Your task to perform on an android device: check out phone information Image 0: 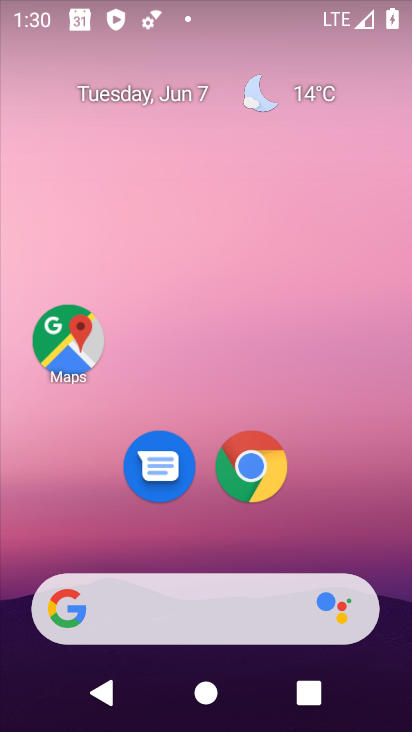
Step 0: drag from (261, 562) to (248, 14)
Your task to perform on an android device: check out phone information Image 1: 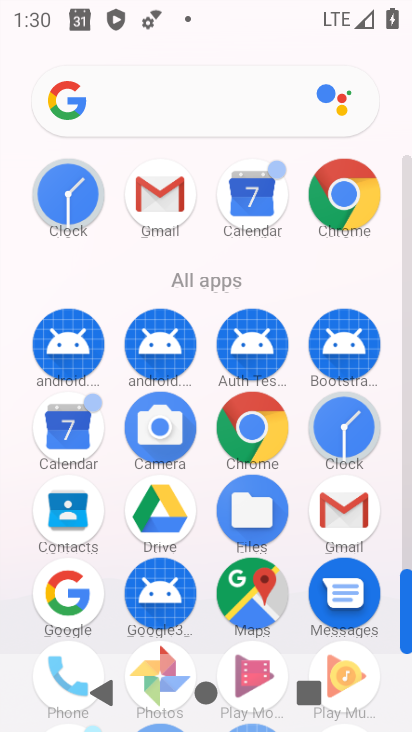
Step 1: drag from (219, 437) to (253, 88)
Your task to perform on an android device: check out phone information Image 2: 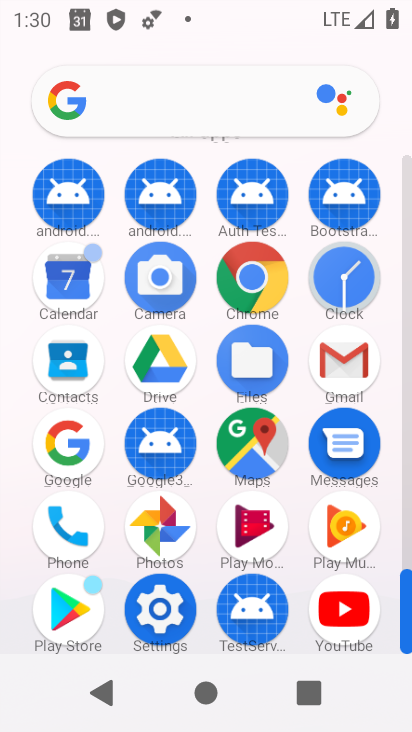
Step 2: click (159, 617)
Your task to perform on an android device: check out phone information Image 3: 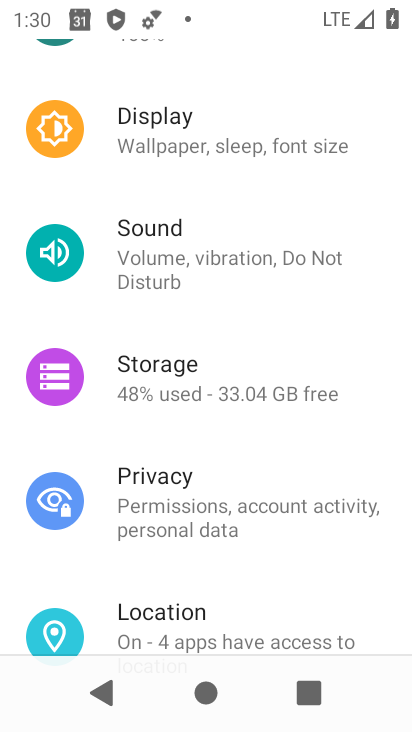
Step 3: drag from (173, 593) to (299, 33)
Your task to perform on an android device: check out phone information Image 4: 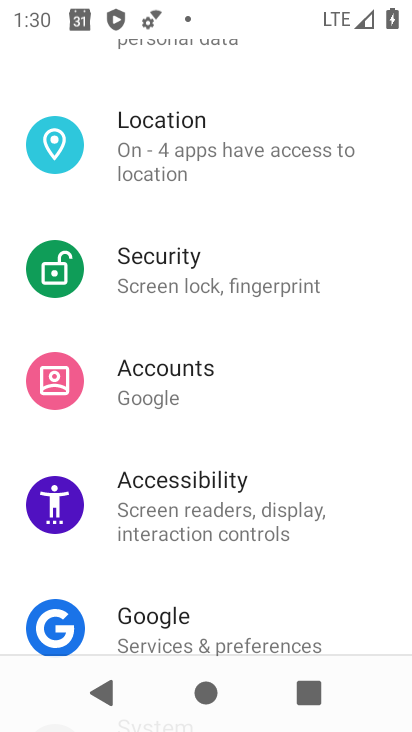
Step 4: drag from (212, 592) to (265, 30)
Your task to perform on an android device: check out phone information Image 5: 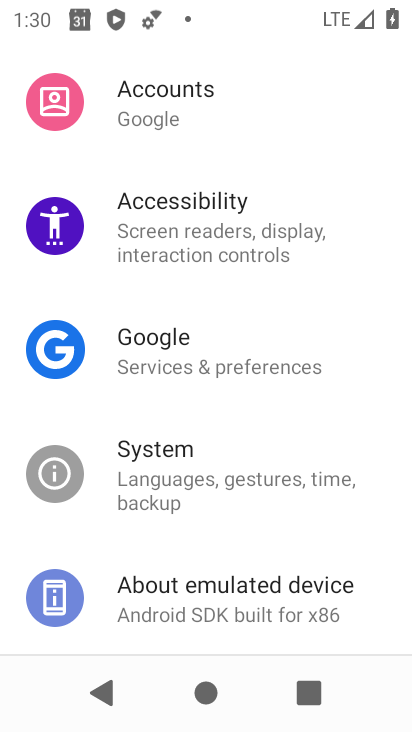
Step 5: click (198, 595)
Your task to perform on an android device: check out phone information Image 6: 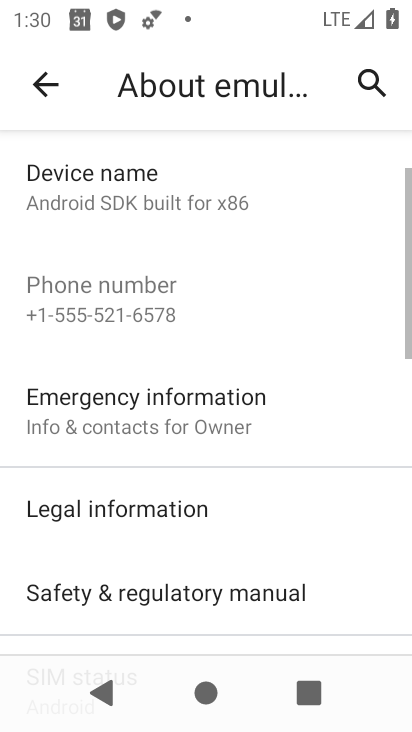
Step 6: task complete